Your task to perform on an android device: set an alarm Image 0: 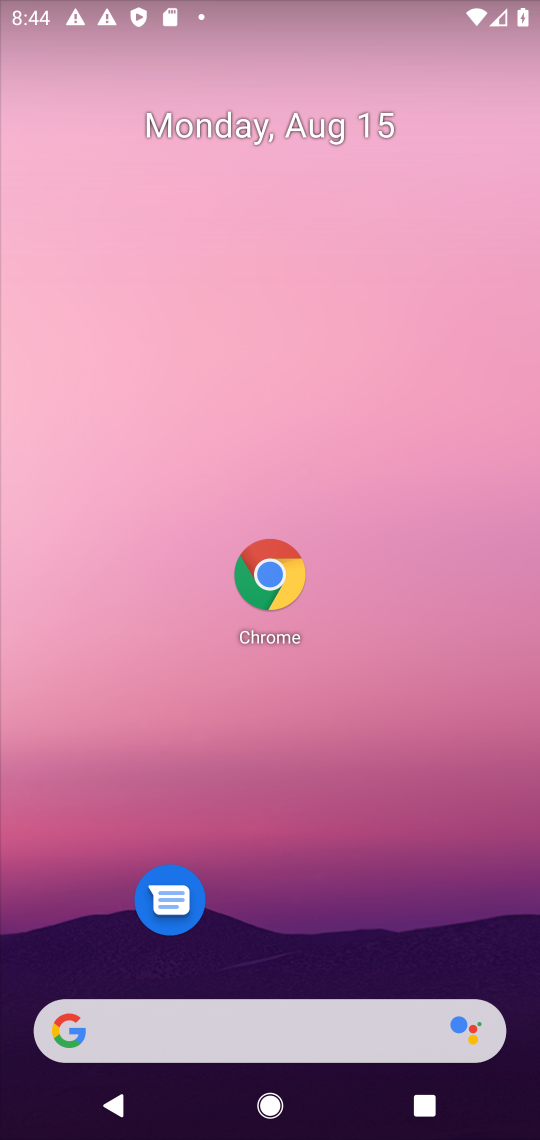
Step 0: drag from (415, 910) to (75, 35)
Your task to perform on an android device: set an alarm Image 1: 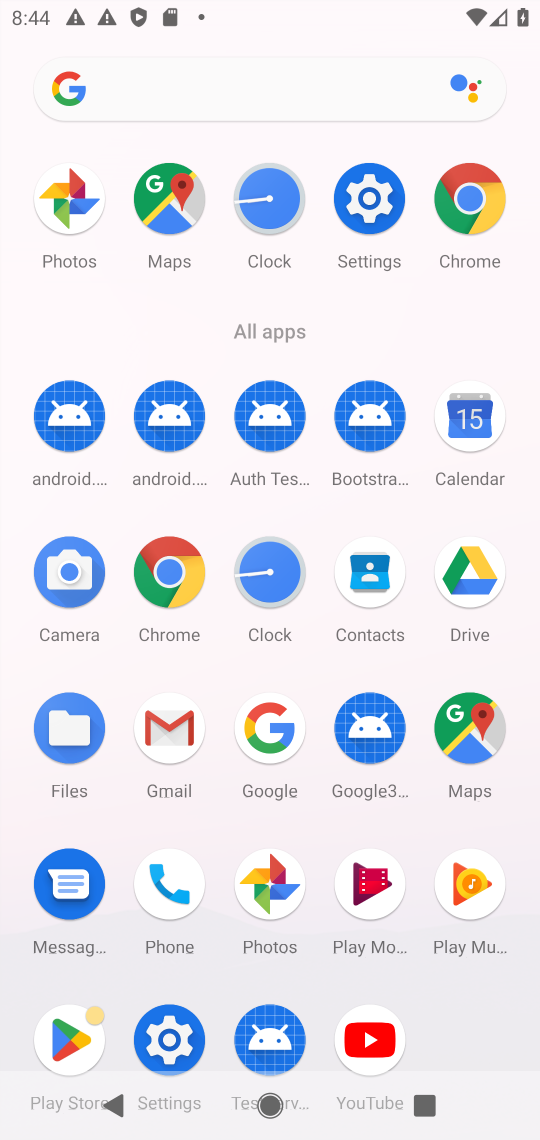
Step 1: click (252, 186)
Your task to perform on an android device: set an alarm Image 2: 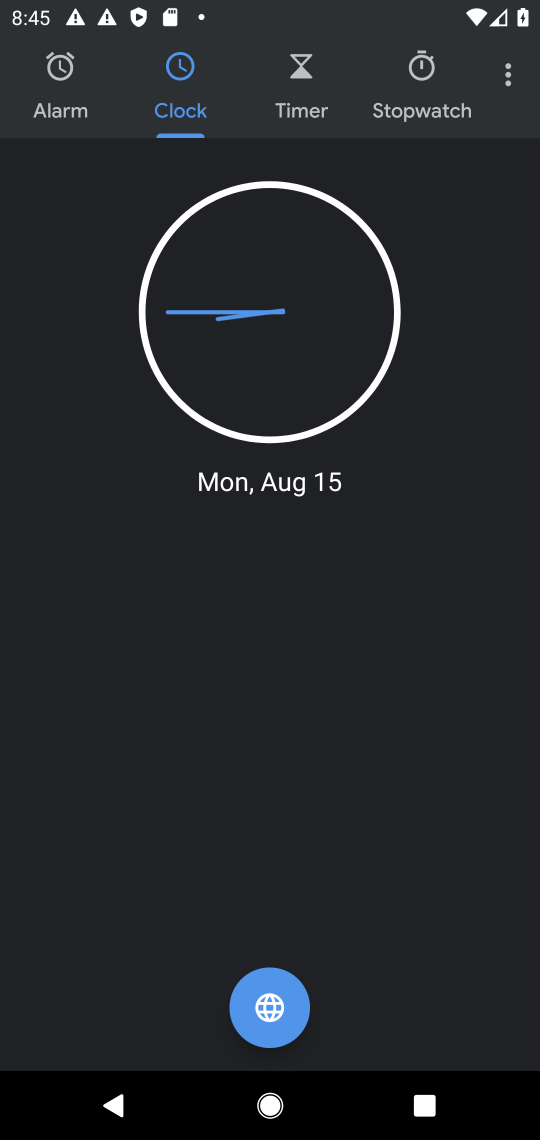
Step 2: click (56, 90)
Your task to perform on an android device: set an alarm Image 3: 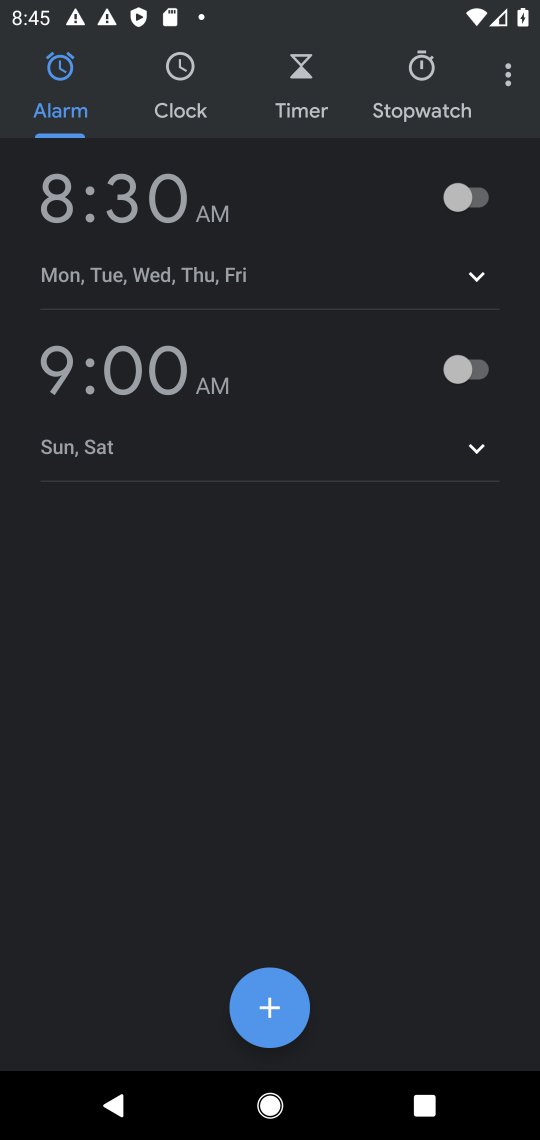
Step 3: click (458, 185)
Your task to perform on an android device: set an alarm Image 4: 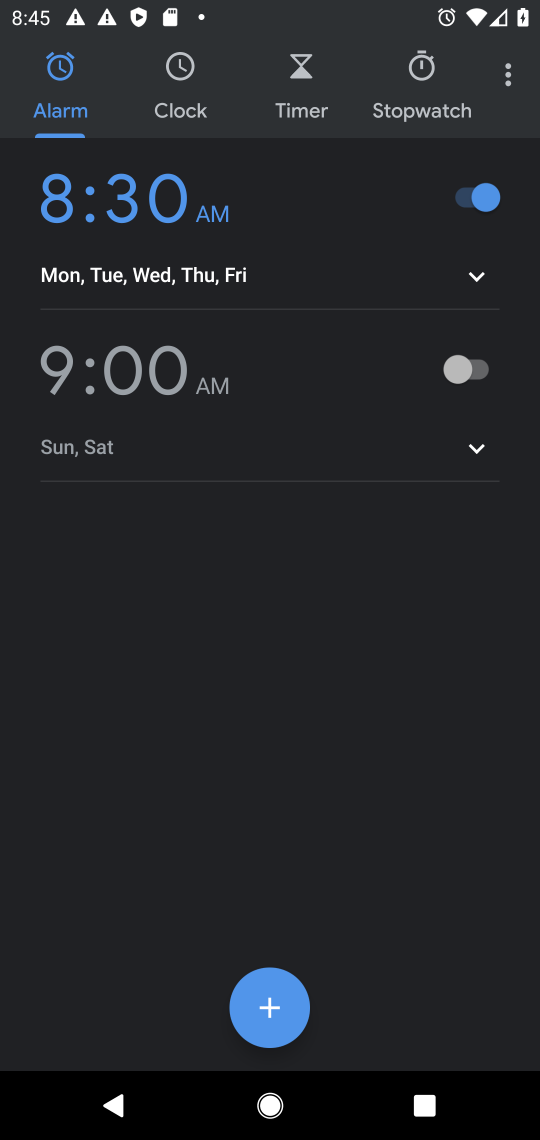
Step 4: task complete